Your task to perform on an android device: Go to battery settings Image 0: 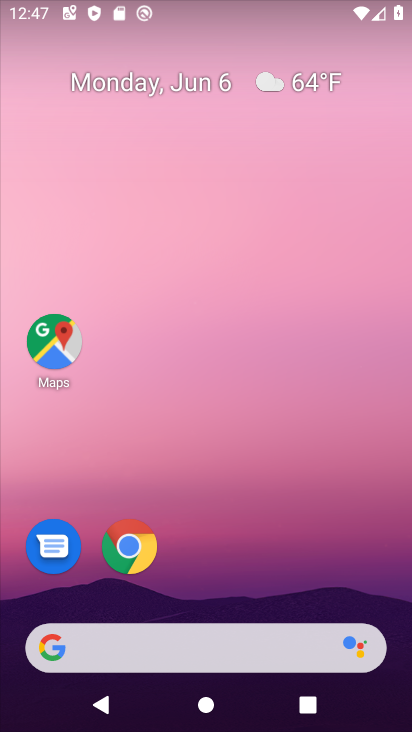
Step 0: drag from (277, 580) to (263, 226)
Your task to perform on an android device: Go to battery settings Image 1: 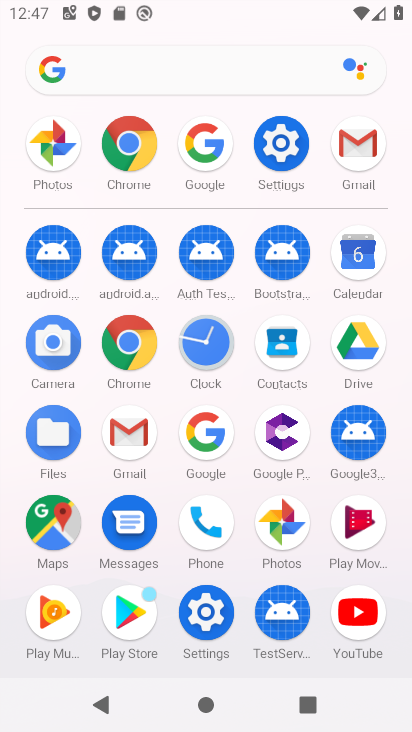
Step 1: click (277, 119)
Your task to perform on an android device: Go to battery settings Image 2: 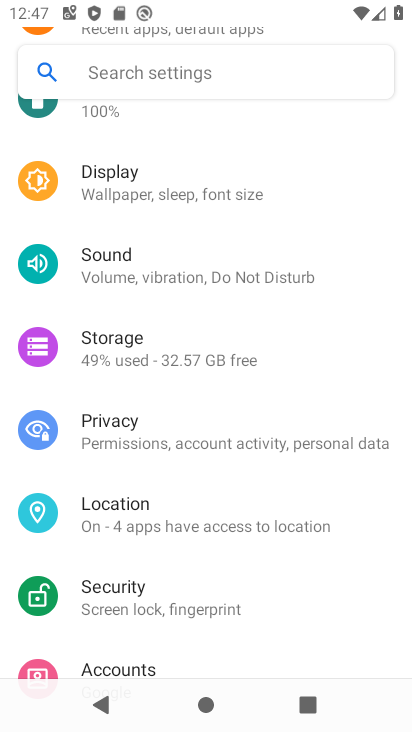
Step 2: drag from (211, 225) to (207, 578)
Your task to perform on an android device: Go to battery settings Image 3: 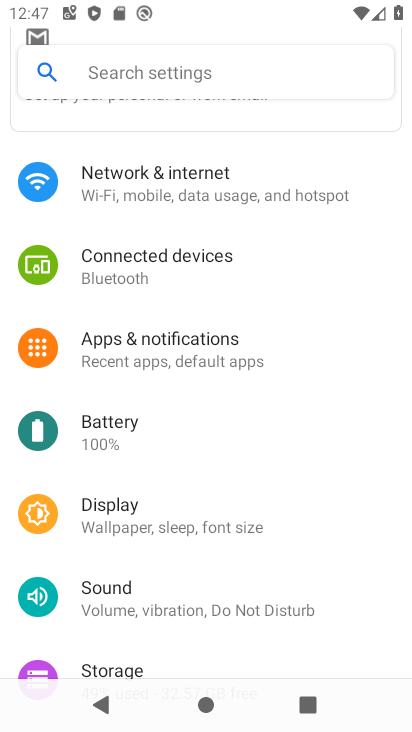
Step 3: click (122, 420)
Your task to perform on an android device: Go to battery settings Image 4: 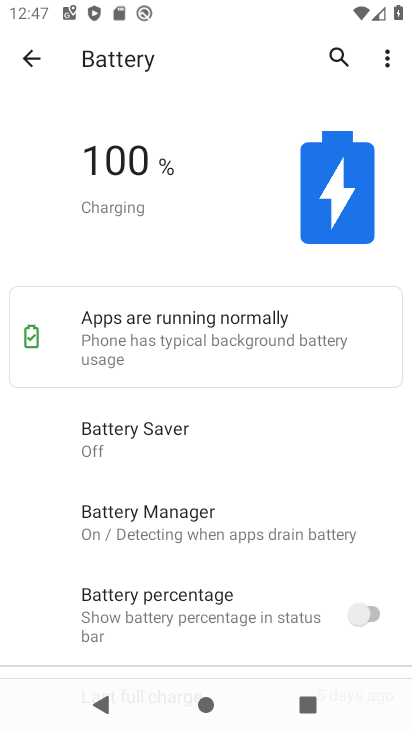
Step 4: task complete